Your task to perform on an android device: Open Chrome and go to the settings page Image 0: 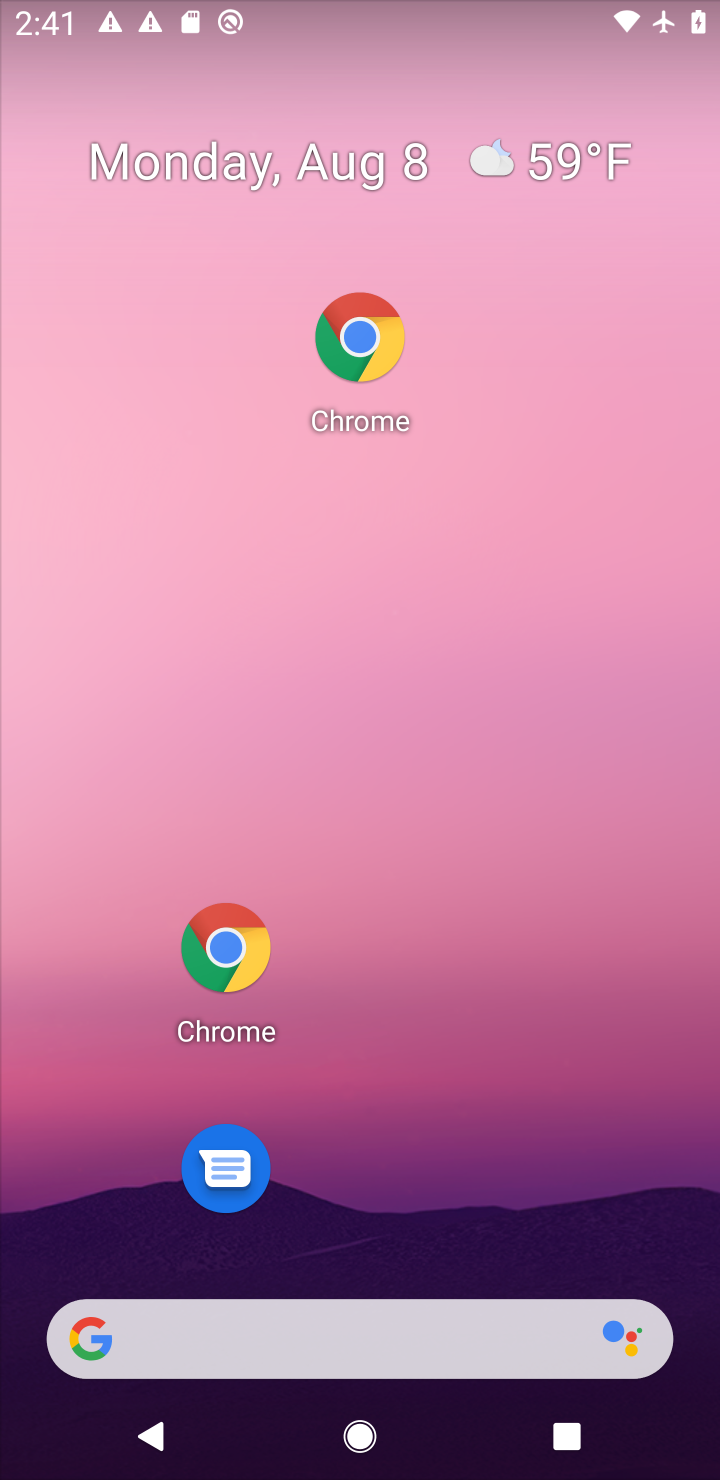
Step 0: click (254, 1031)
Your task to perform on an android device: Open Chrome and go to the settings page Image 1: 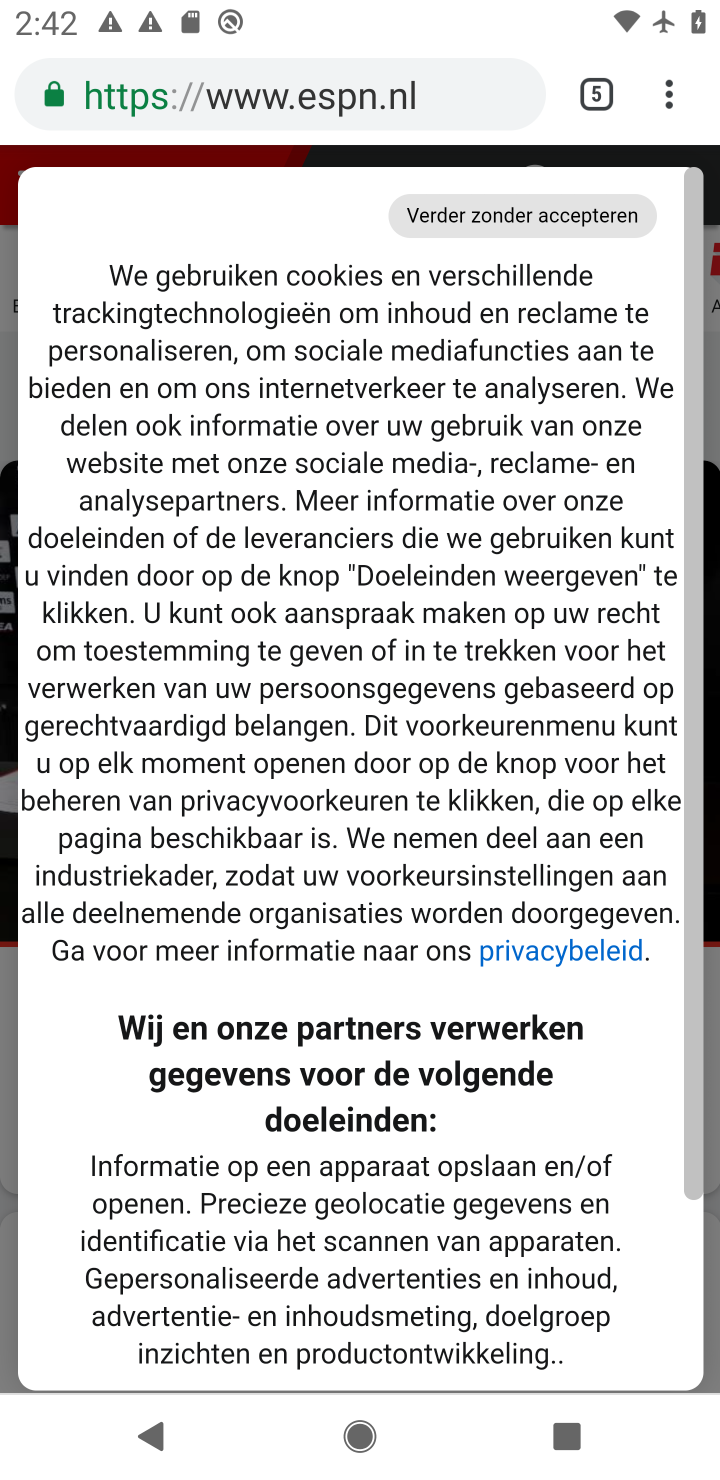
Step 1: click (671, 96)
Your task to perform on an android device: Open Chrome and go to the settings page Image 2: 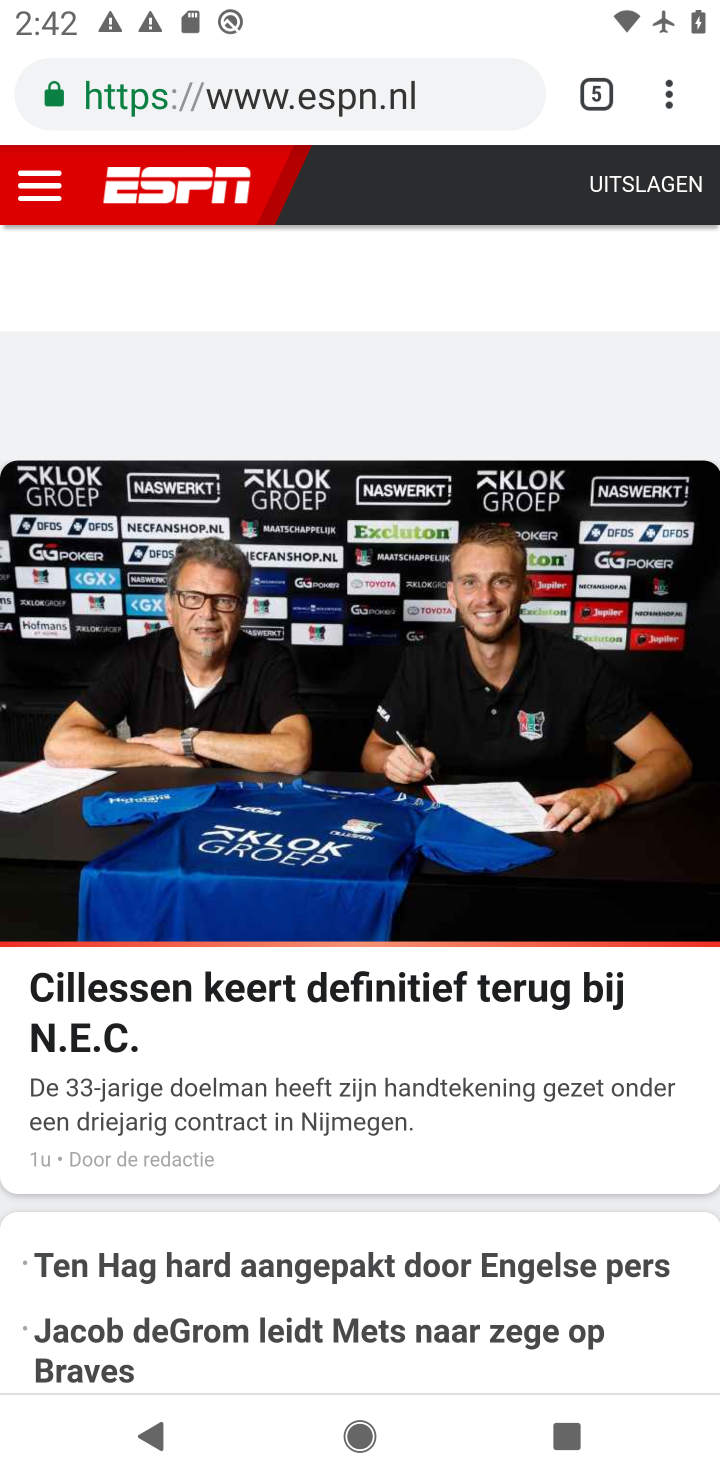
Step 2: click (666, 118)
Your task to perform on an android device: Open Chrome and go to the settings page Image 3: 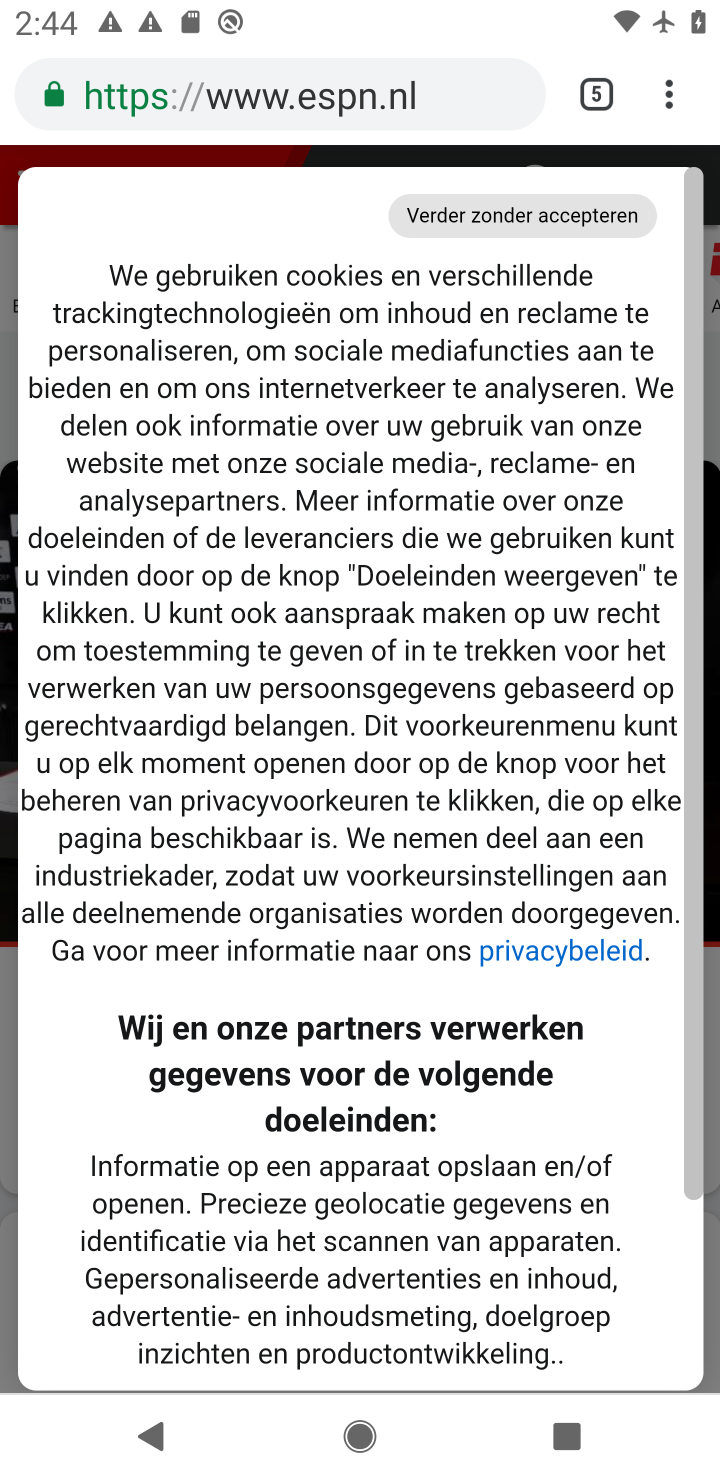
Step 3: task complete